Your task to perform on an android device: change notifications settings Image 0: 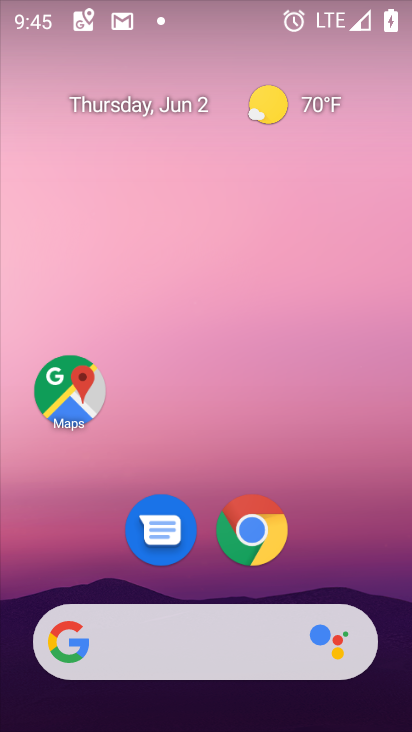
Step 0: drag from (246, 583) to (265, 232)
Your task to perform on an android device: change notifications settings Image 1: 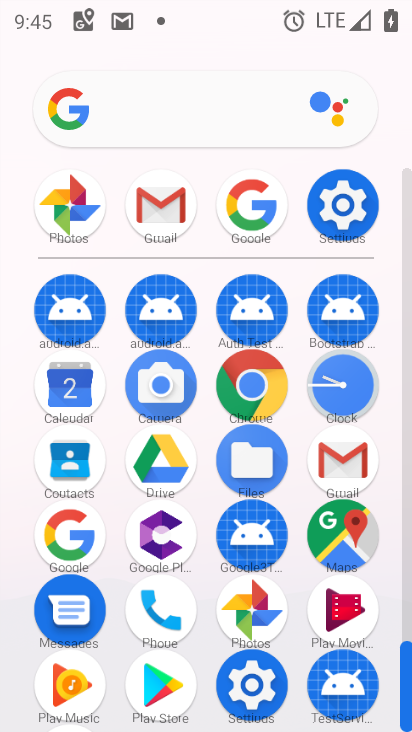
Step 1: click (337, 190)
Your task to perform on an android device: change notifications settings Image 2: 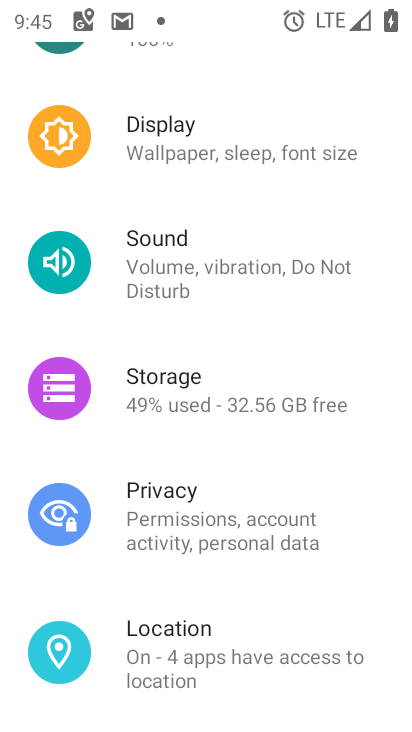
Step 2: drag from (183, 169) to (254, 628)
Your task to perform on an android device: change notifications settings Image 3: 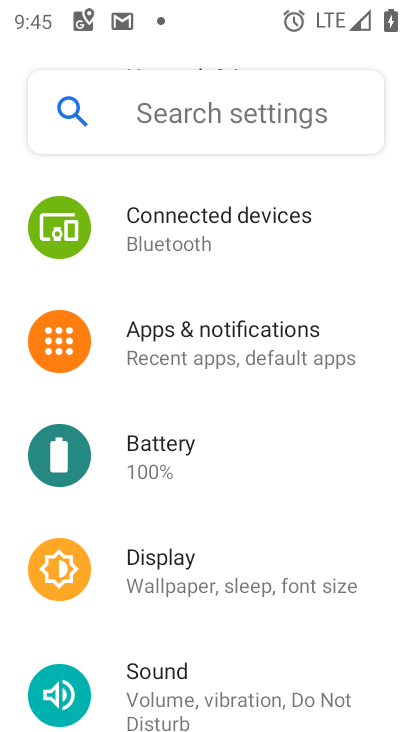
Step 3: click (190, 352)
Your task to perform on an android device: change notifications settings Image 4: 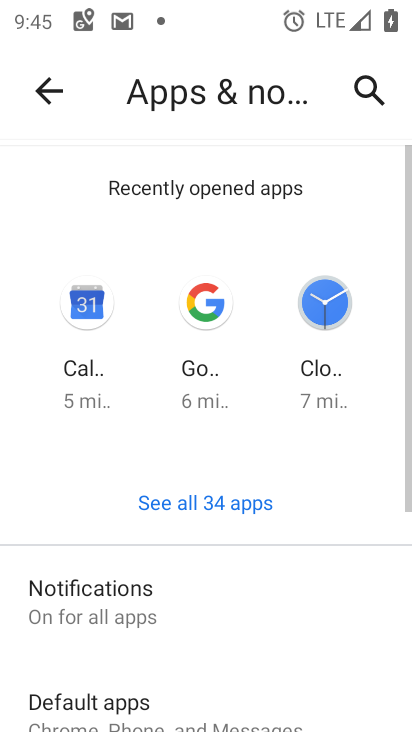
Step 4: click (93, 599)
Your task to perform on an android device: change notifications settings Image 5: 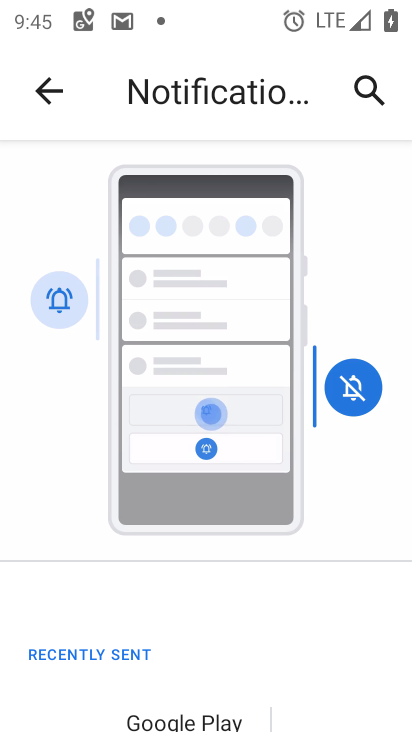
Step 5: drag from (229, 658) to (158, 230)
Your task to perform on an android device: change notifications settings Image 6: 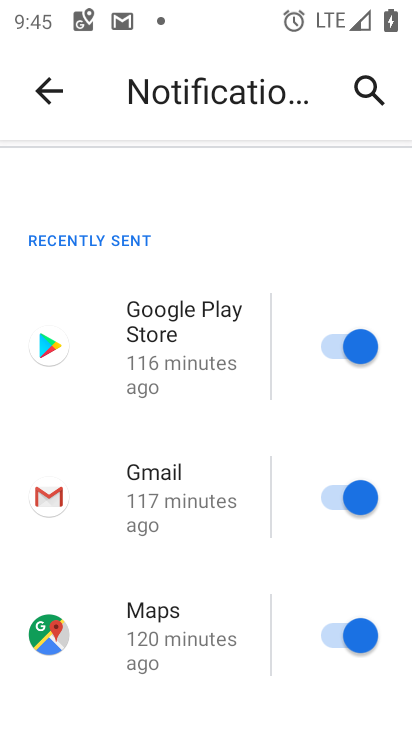
Step 6: click (327, 345)
Your task to perform on an android device: change notifications settings Image 7: 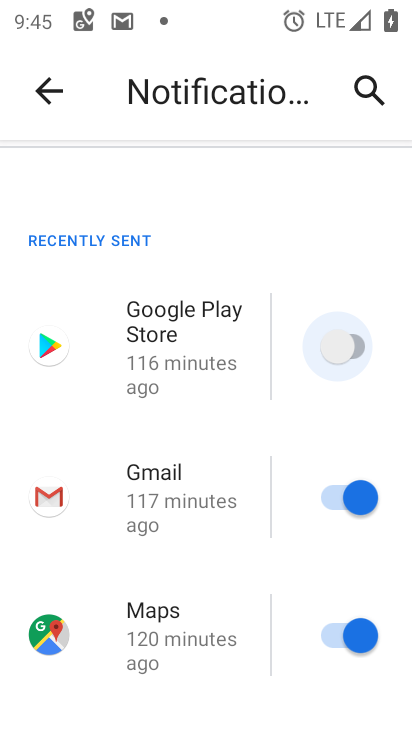
Step 7: click (339, 498)
Your task to perform on an android device: change notifications settings Image 8: 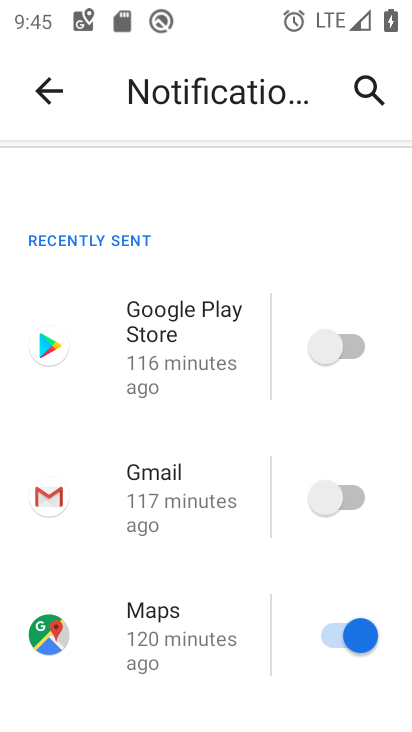
Step 8: click (346, 643)
Your task to perform on an android device: change notifications settings Image 9: 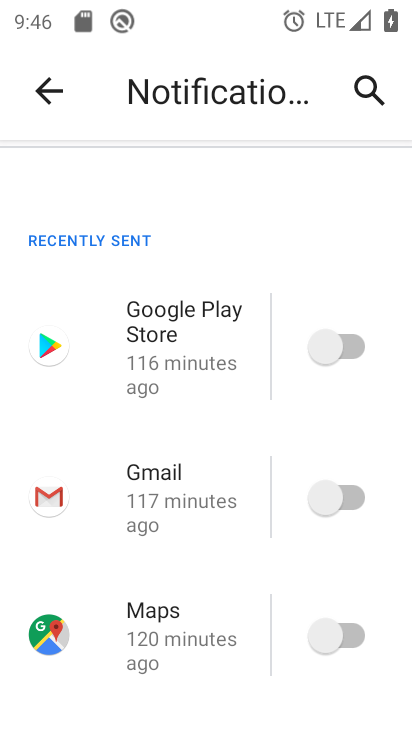
Step 9: task complete